Your task to perform on an android device: change the clock display to show seconds Image 0: 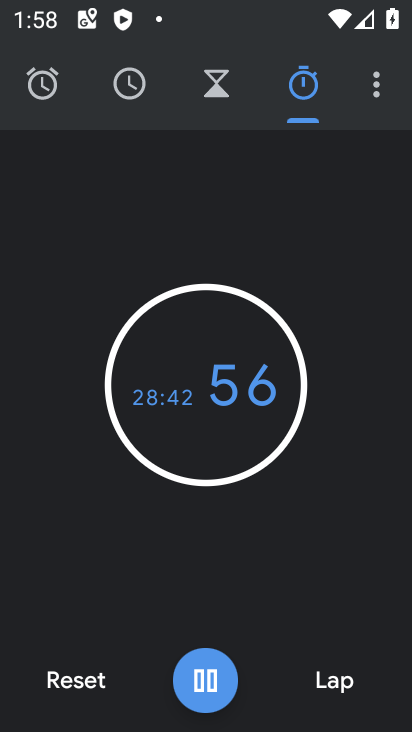
Step 0: press home button
Your task to perform on an android device: change the clock display to show seconds Image 1: 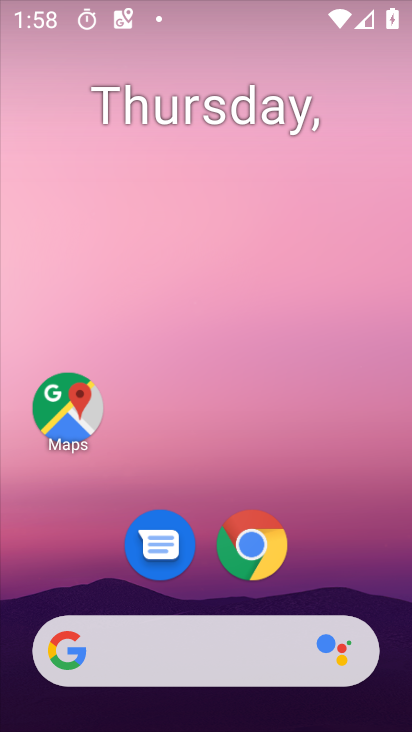
Step 1: drag from (240, 721) to (259, 171)
Your task to perform on an android device: change the clock display to show seconds Image 2: 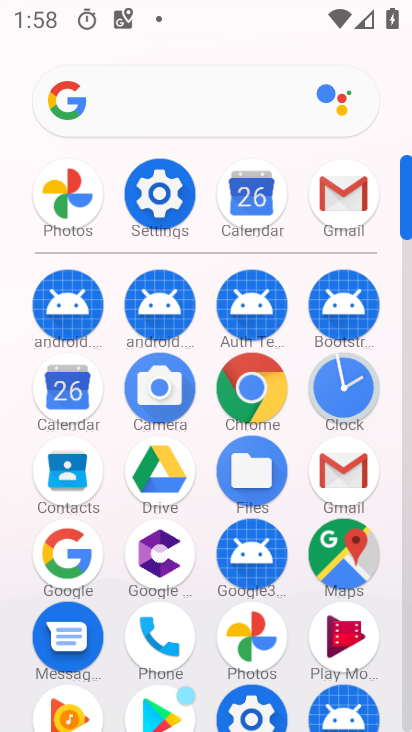
Step 2: click (349, 395)
Your task to perform on an android device: change the clock display to show seconds Image 3: 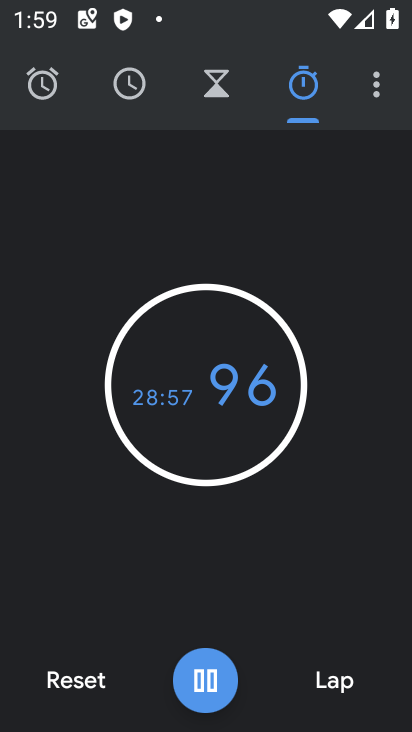
Step 3: click (376, 91)
Your task to perform on an android device: change the clock display to show seconds Image 4: 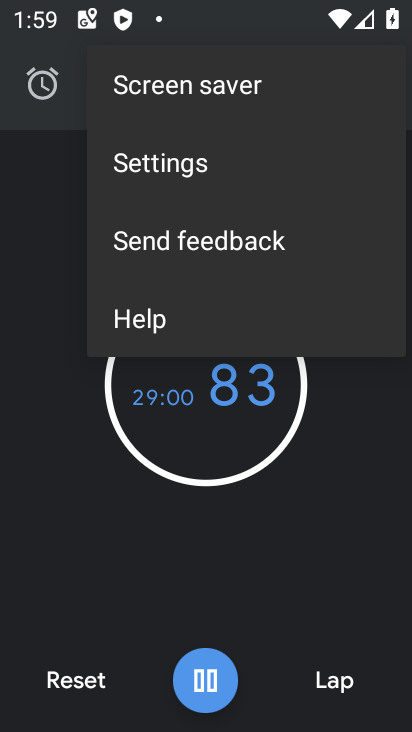
Step 4: click (215, 167)
Your task to perform on an android device: change the clock display to show seconds Image 5: 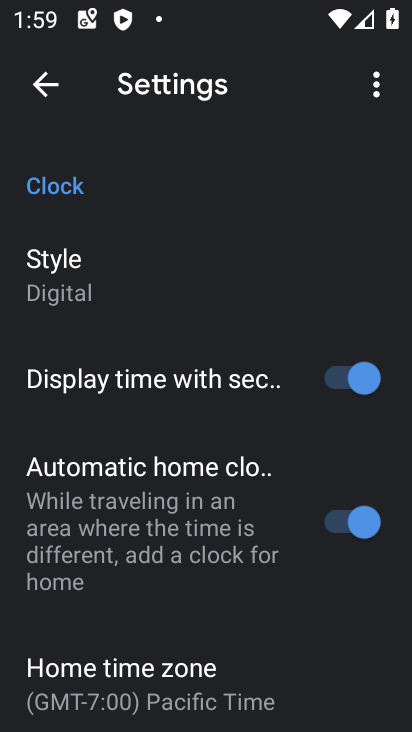
Step 5: task complete